Your task to perform on an android device: delete the emails in spam in the gmail app Image 0: 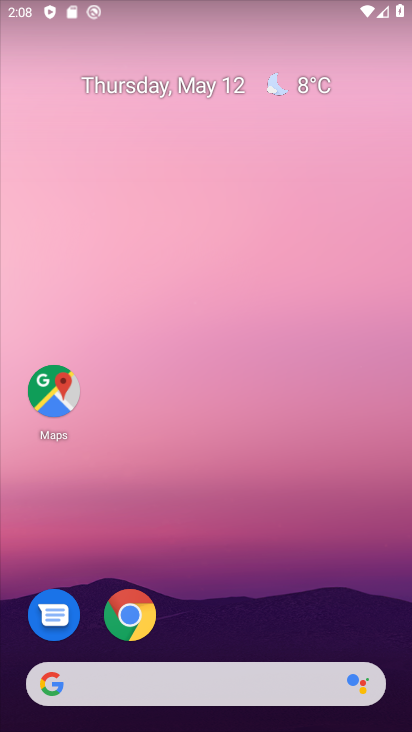
Step 0: drag from (169, 651) to (290, 173)
Your task to perform on an android device: delete the emails in spam in the gmail app Image 1: 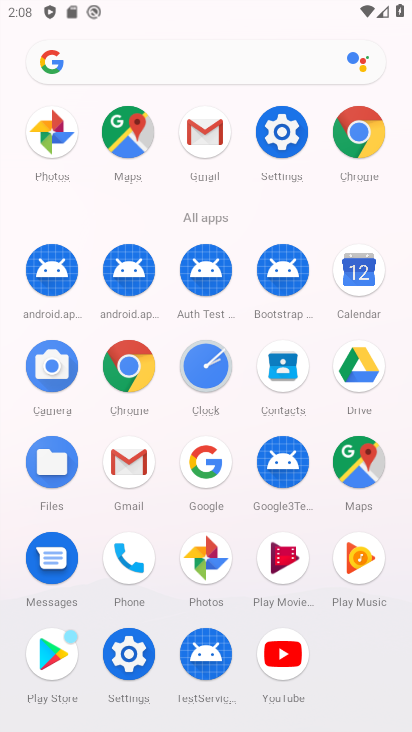
Step 1: click (132, 459)
Your task to perform on an android device: delete the emails in spam in the gmail app Image 2: 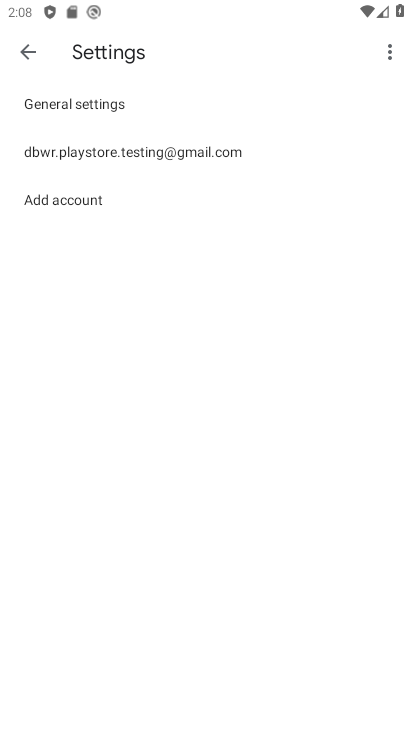
Step 2: click (49, 59)
Your task to perform on an android device: delete the emails in spam in the gmail app Image 3: 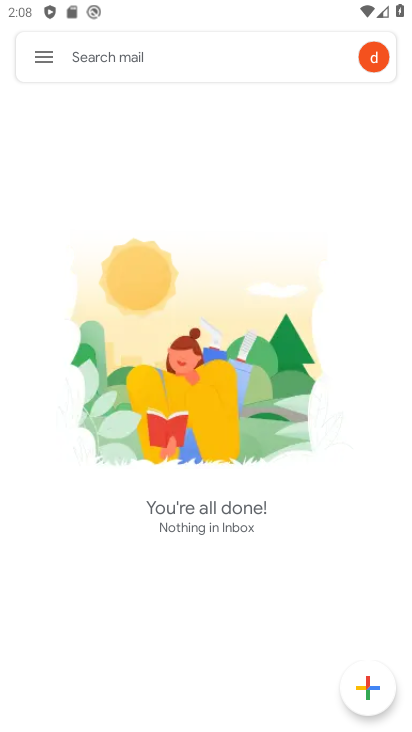
Step 3: click (47, 44)
Your task to perform on an android device: delete the emails in spam in the gmail app Image 4: 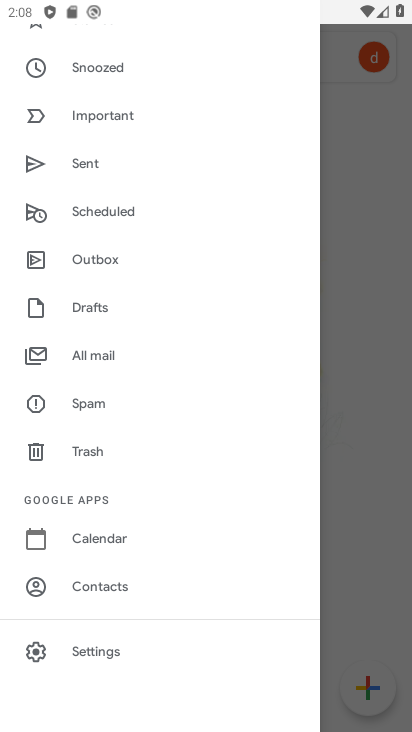
Step 4: click (119, 401)
Your task to perform on an android device: delete the emails in spam in the gmail app Image 5: 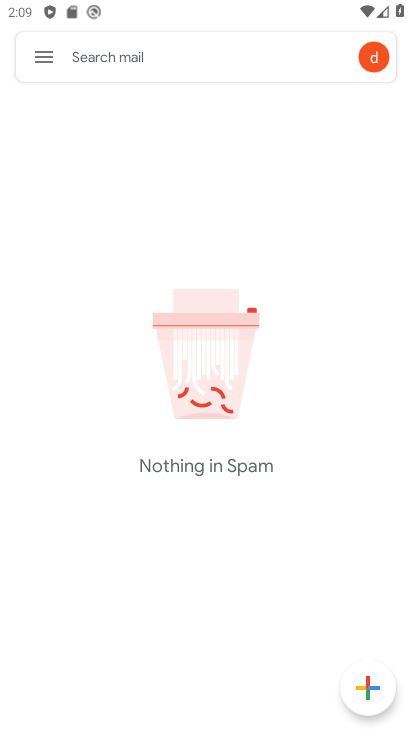
Step 5: task complete